Your task to perform on an android device: Clear the shopping cart on bestbuy. Image 0: 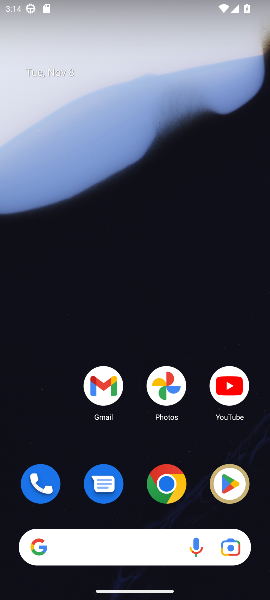
Step 0: click (150, 474)
Your task to perform on an android device: Clear the shopping cart on bestbuy. Image 1: 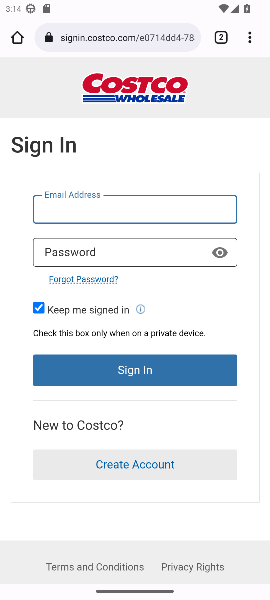
Step 1: click (175, 25)
Your task to perform on an android device: Clear the shopping cart on bestbuy. Image 2: 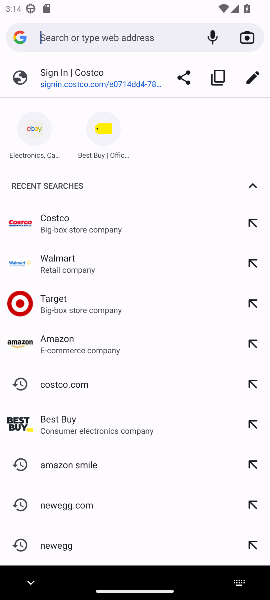
Step 2: click (72, 417)
Your task to perform on an android device: Clear the shopping cart on bestbuy. Image 3: 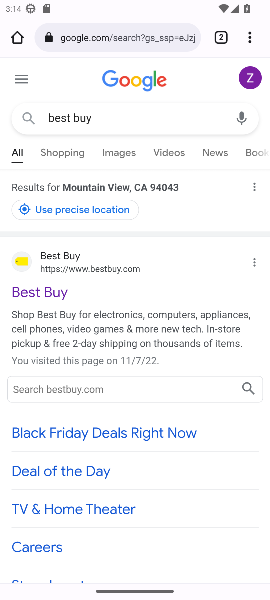
Step 3: click (32, 297)
Your task to perform on an android device: Clear the shopping cart on bestbuy. Image 4: 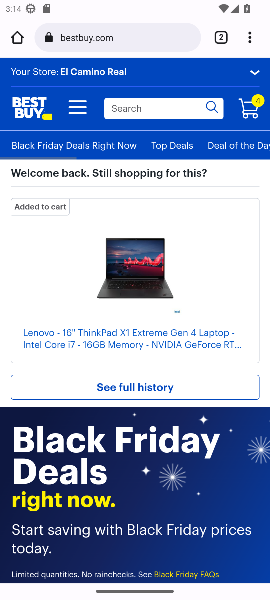
Step 4: click (259, 112)
Your task to perform on an android device: Clear the shopping cart on bestbuy. Image 5: 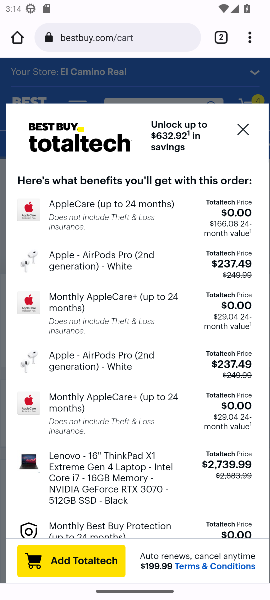
Step 5: click (238, 125)
Your task to perform on an android device: Clear the shopping cart on bestbuy. Image 6: 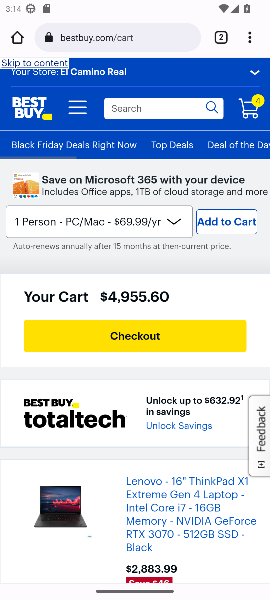
Step 6: drag from (170, 448) to (184, 211)
Your task to perform on an android device: Clear the shopping cart on bestbuy. Image 7: 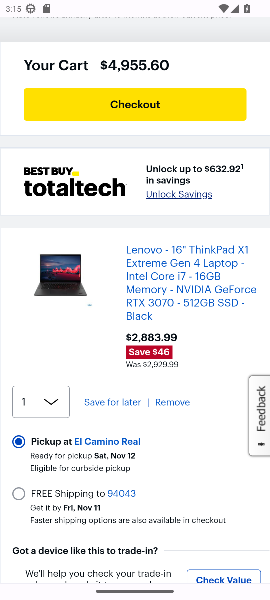
Step 7: click (159, 398)
Your task to perform on an android device: Clear the shopping cart on bestbuy. Image 8: 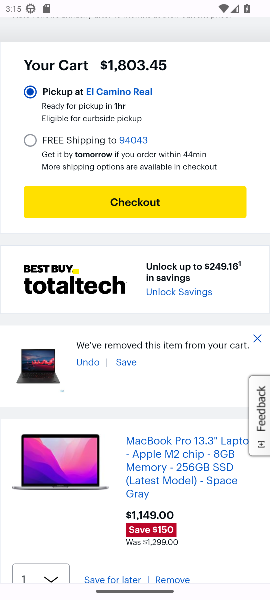
Step 8: task complete